Your task to perform on an android device: change keyboard looks Image 0: 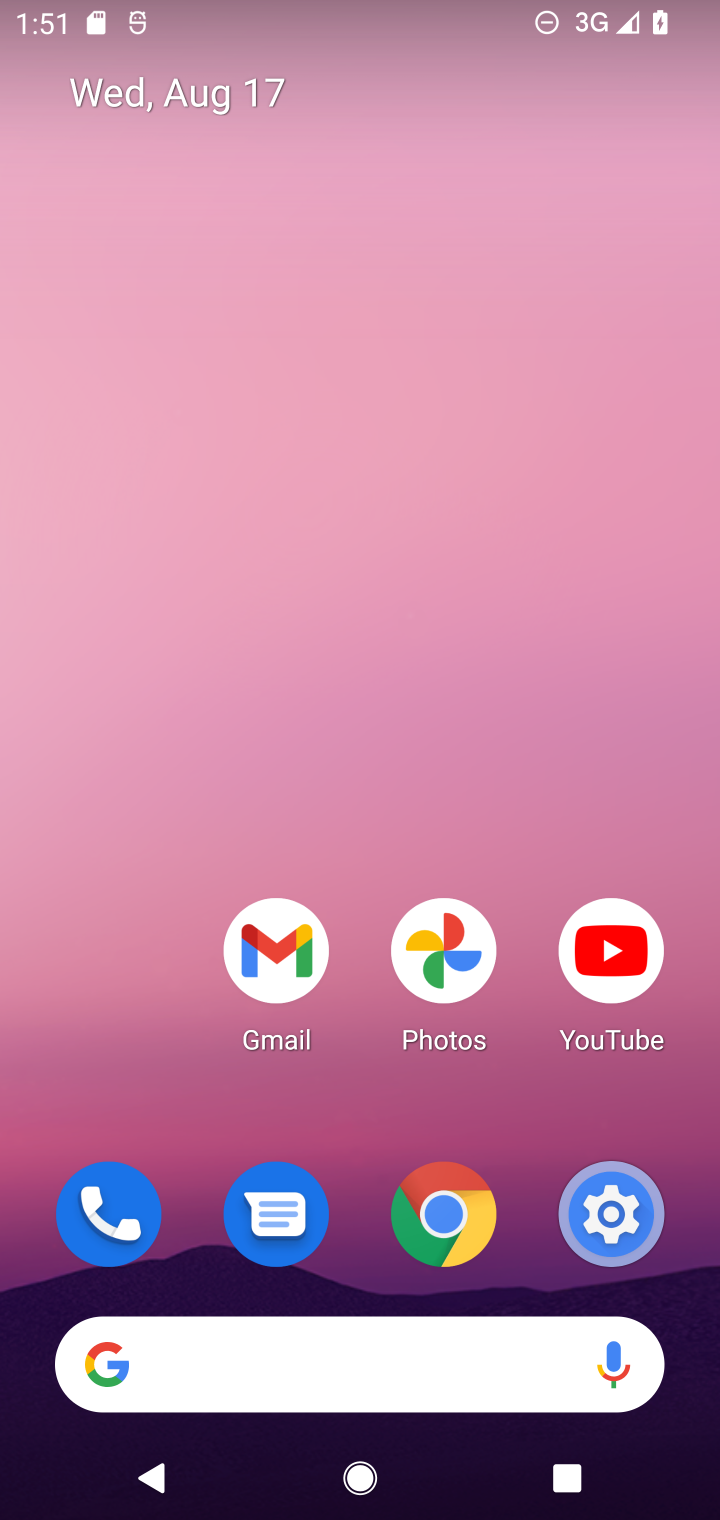
Step 0: click (615, 1204)
Your task to perform on an android device: change keyboard looks Image 1: 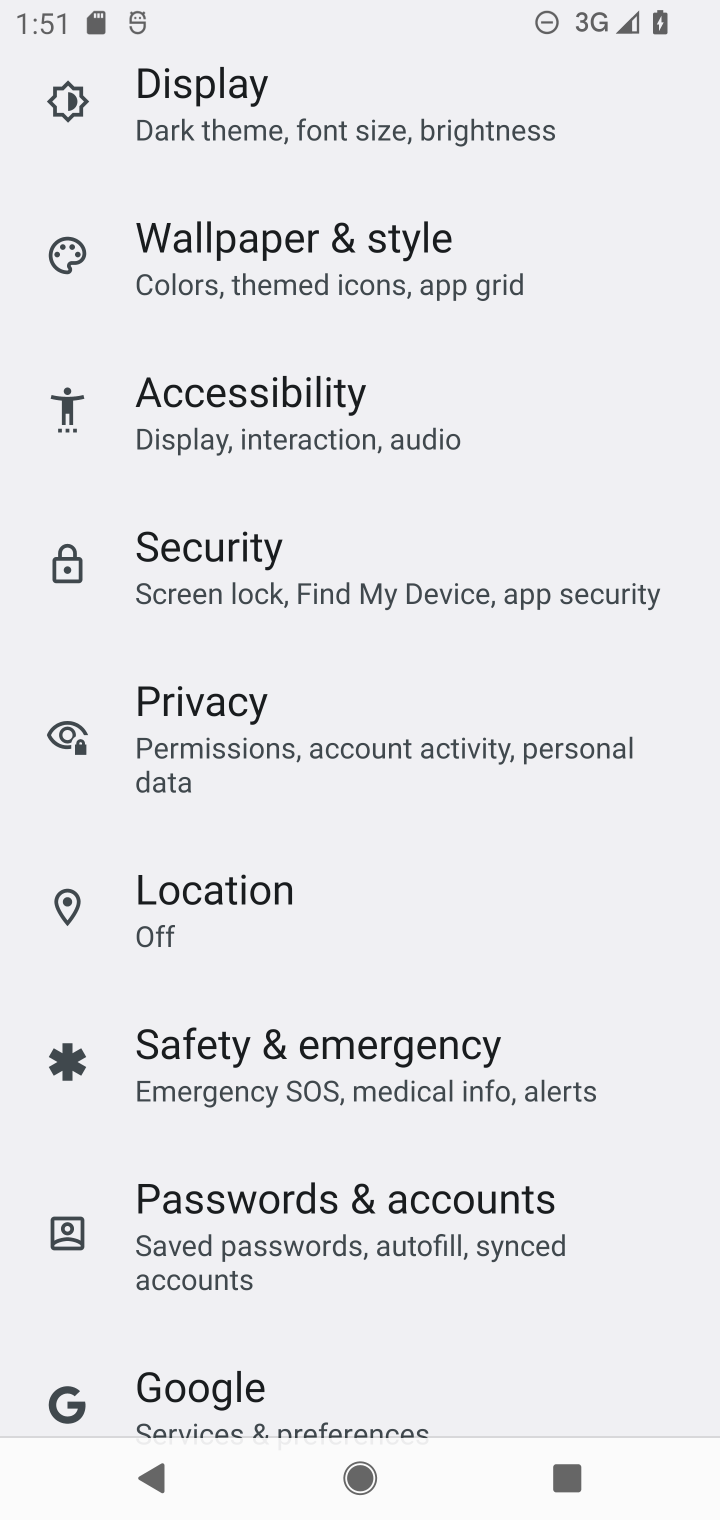
Step 1: drag from (358, 1301) to (333, 613)
Your task to perform on an android device: change keyboard looks Image 2: 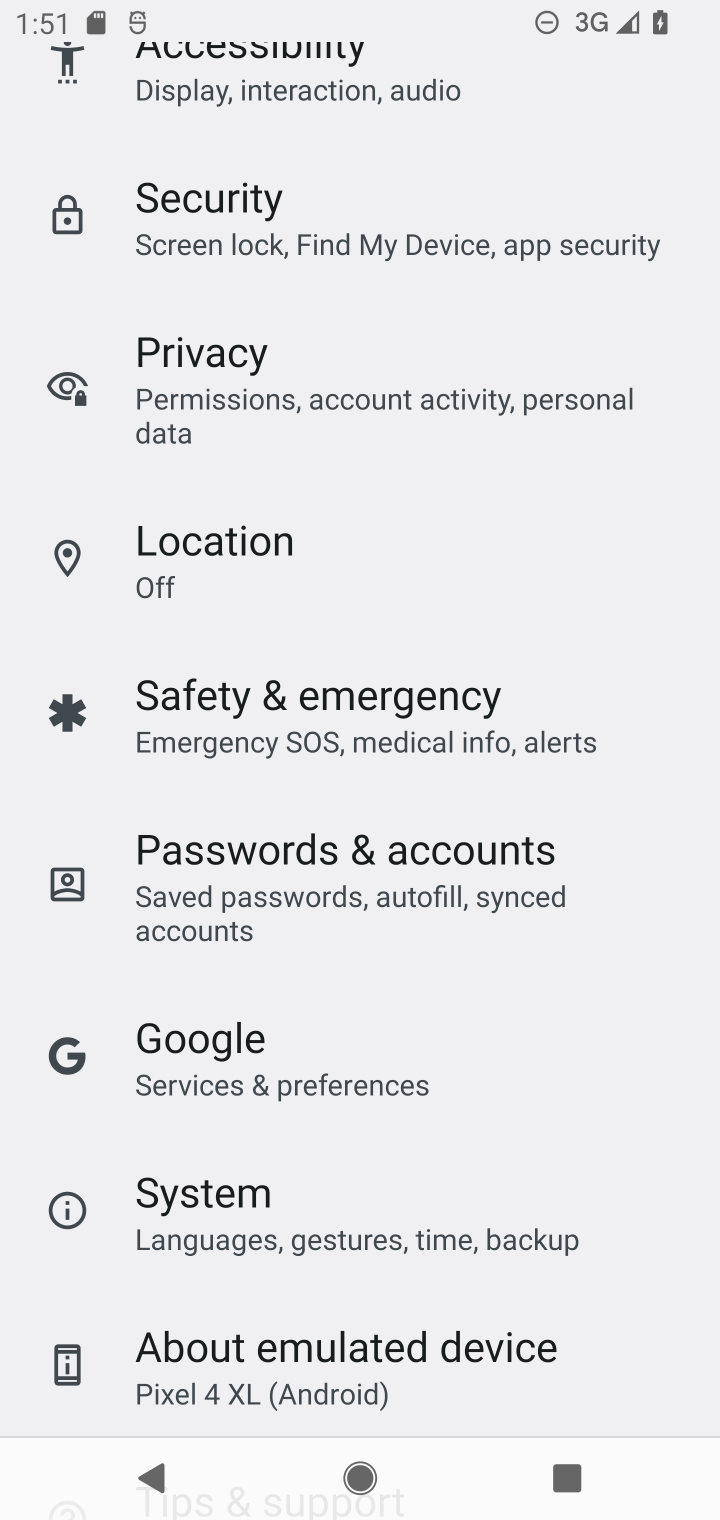
Step 2: drag from (317, 1137) to (320, 750)
Your task to perform on an android device: change keyboard looks Image 3: 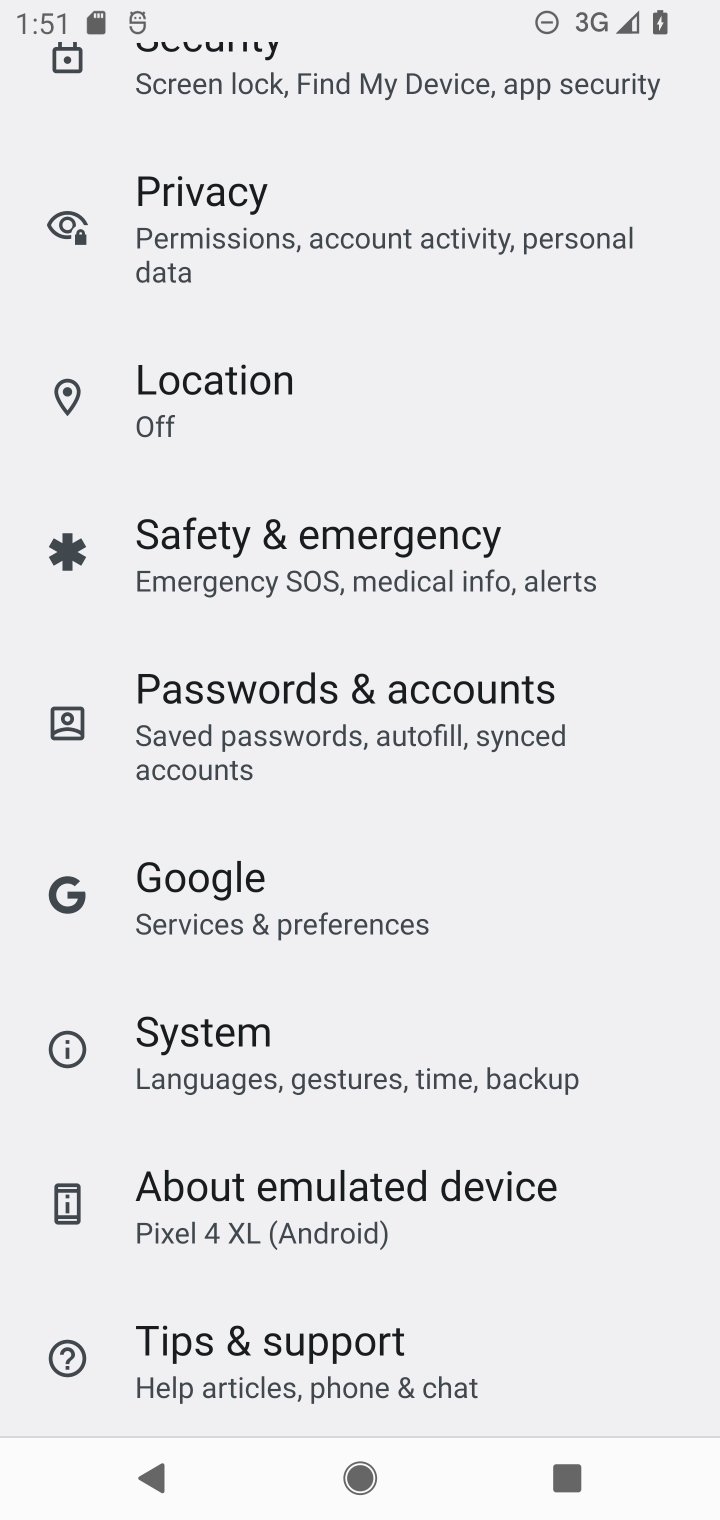
Step 3: click (216, 1033)
Your task to perform on an android device: change keyboard looks Image 4: 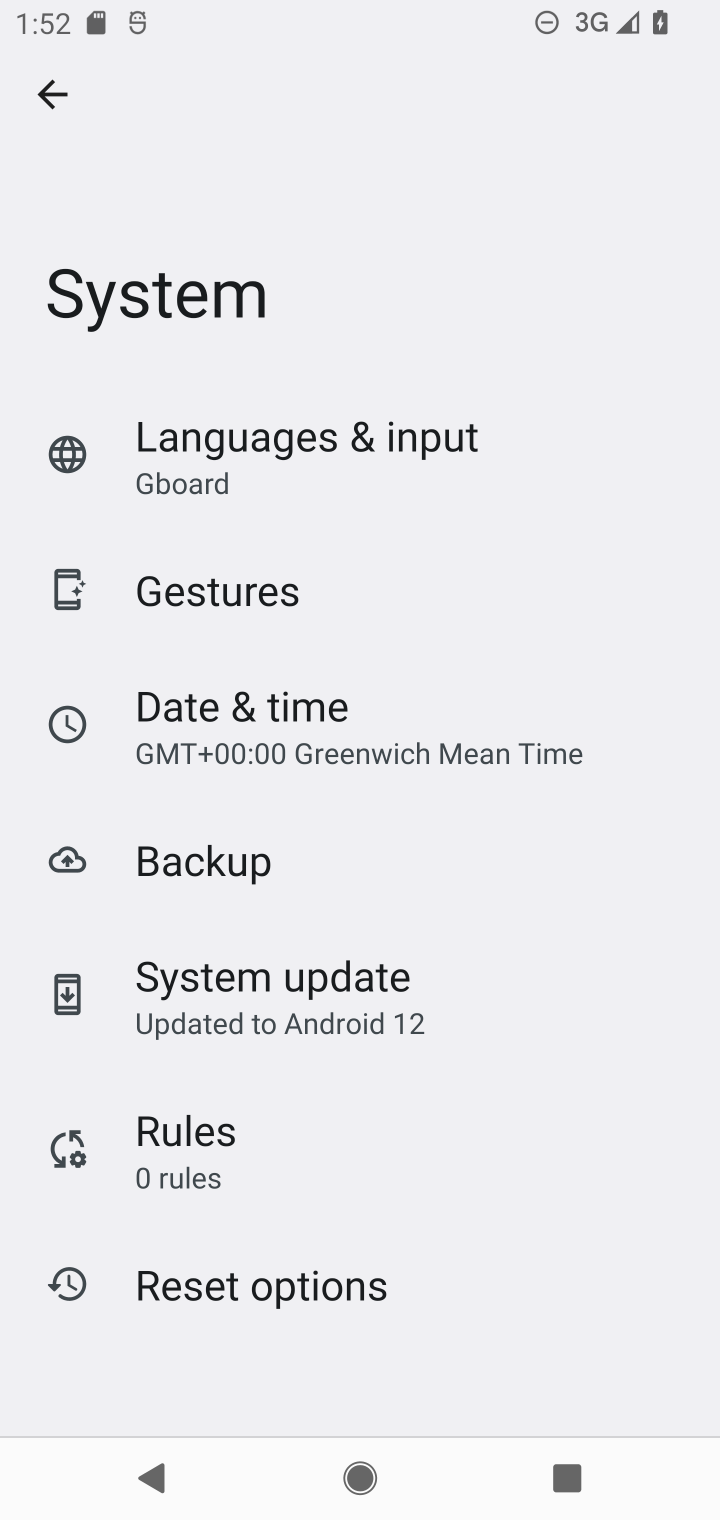
Step 4: click (231, 437)
Your task to perform on an android device: change keyboard looks Image 5: 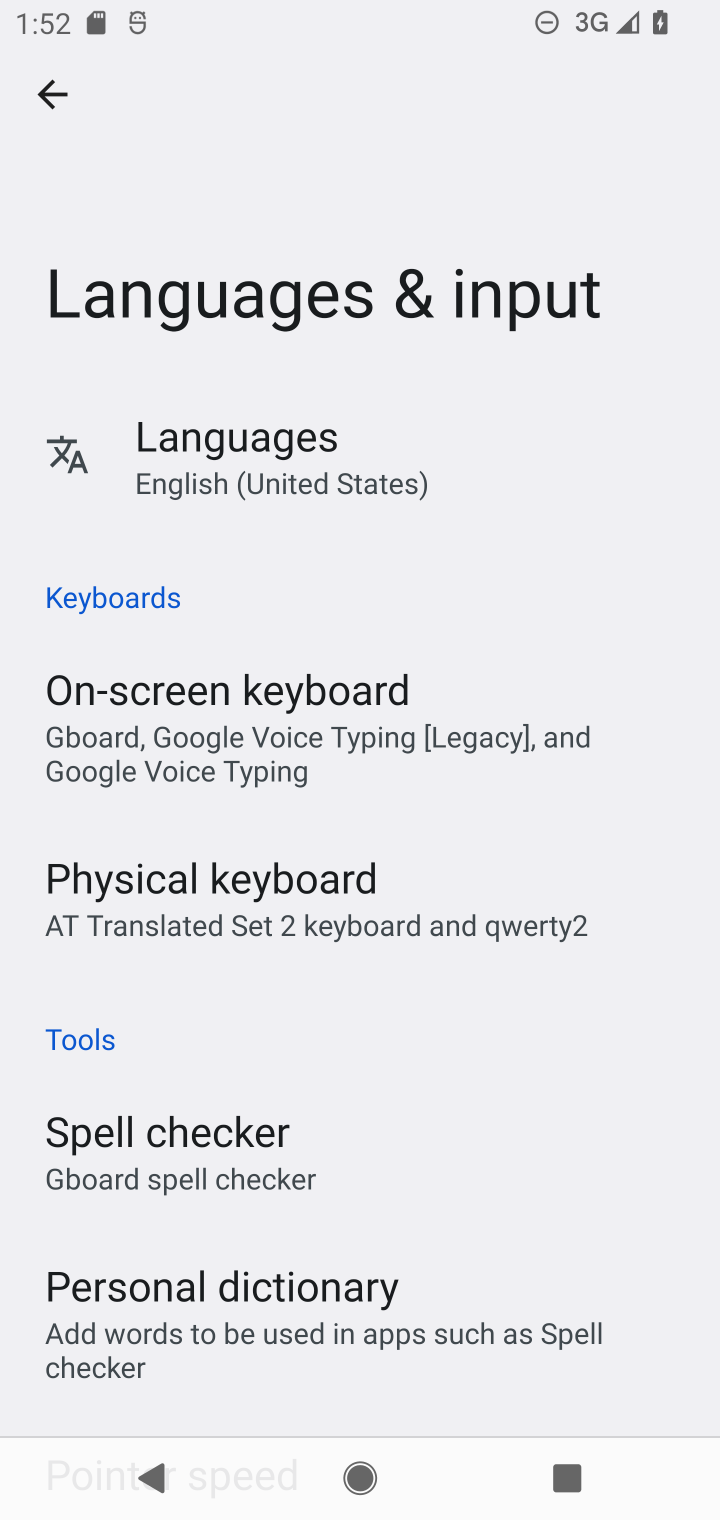
Step 5: click (194, 685)
Your task to perform on an android device: change keyboard looks Image 6: 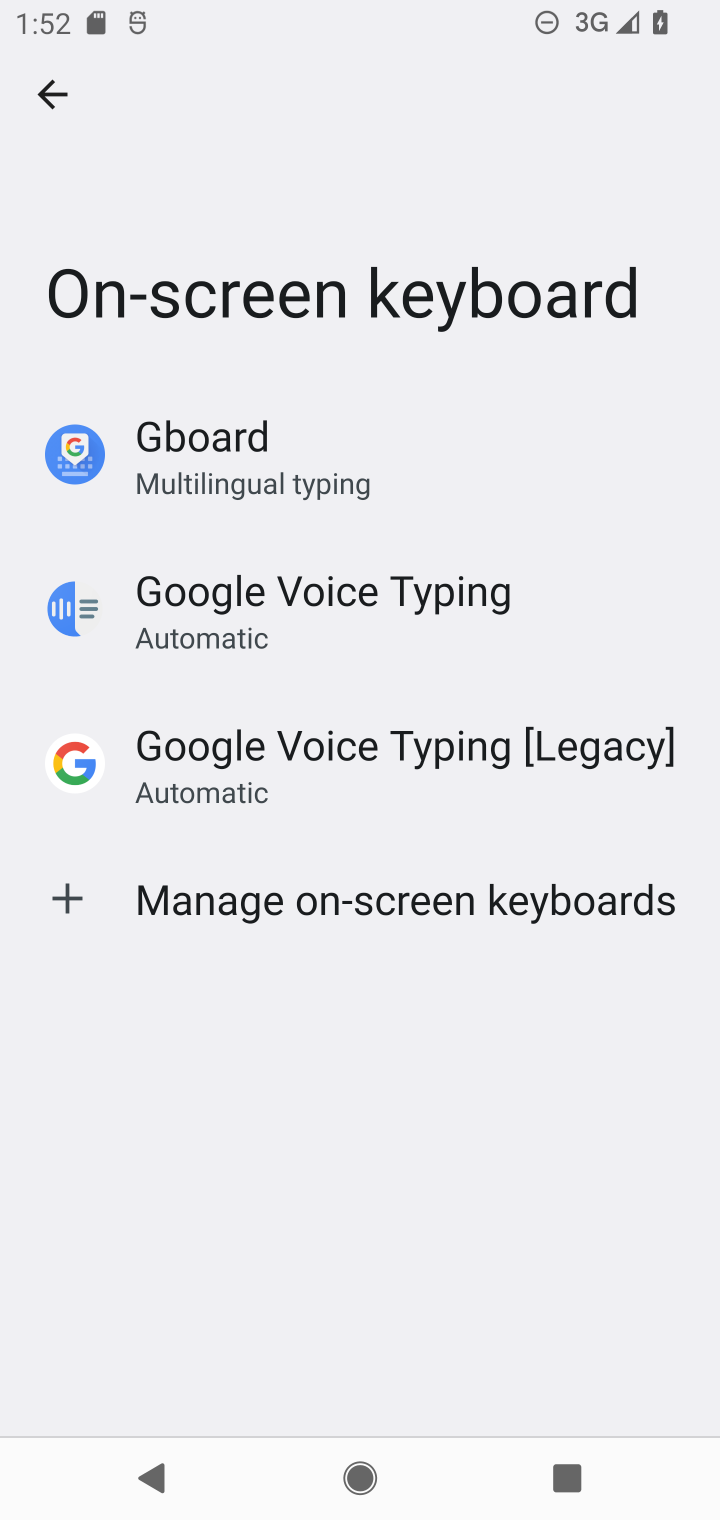
Step 6: click (185, 443)
Your task to perform on an android device: change keyboard looks Image 7: 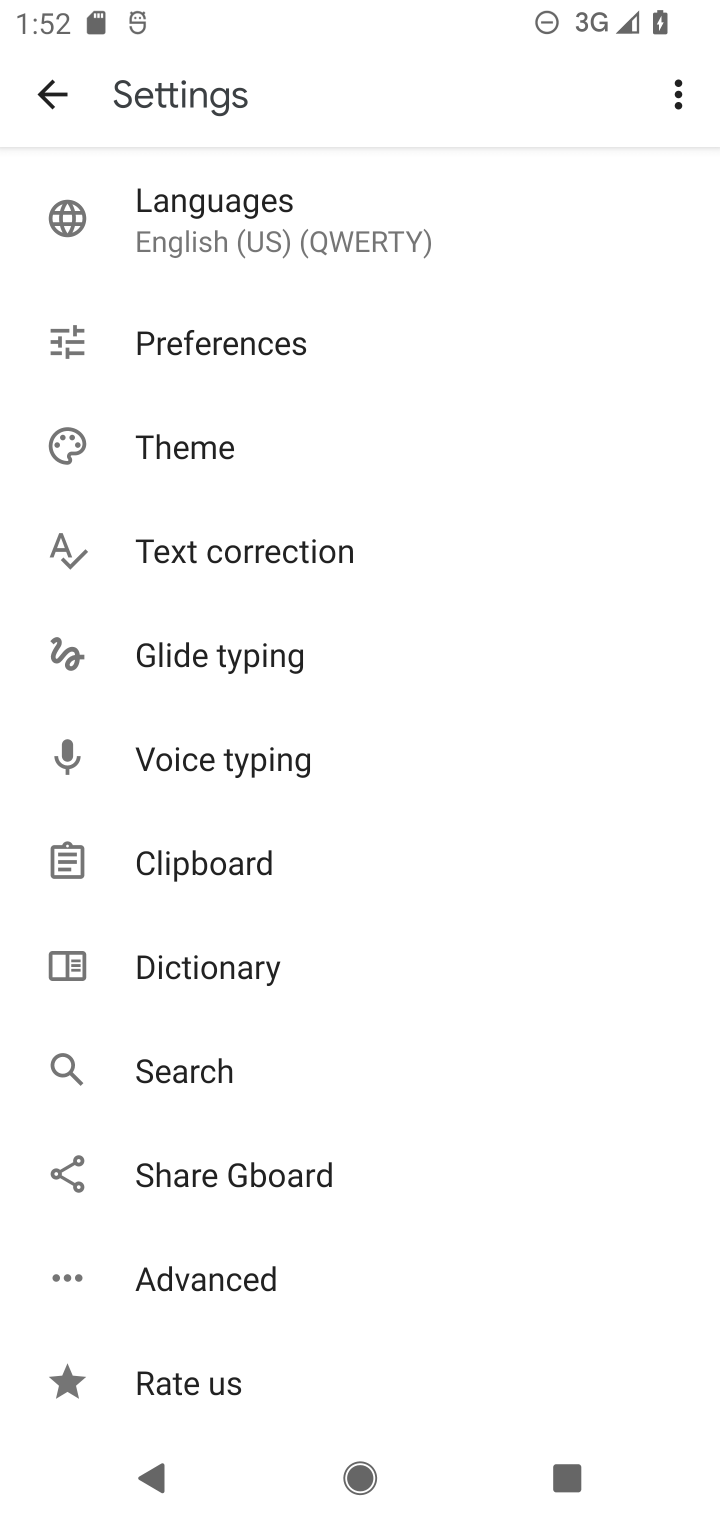
Step 7: click (176, 437)
Your task to perform on an android device: change keyboard looks Image 8: 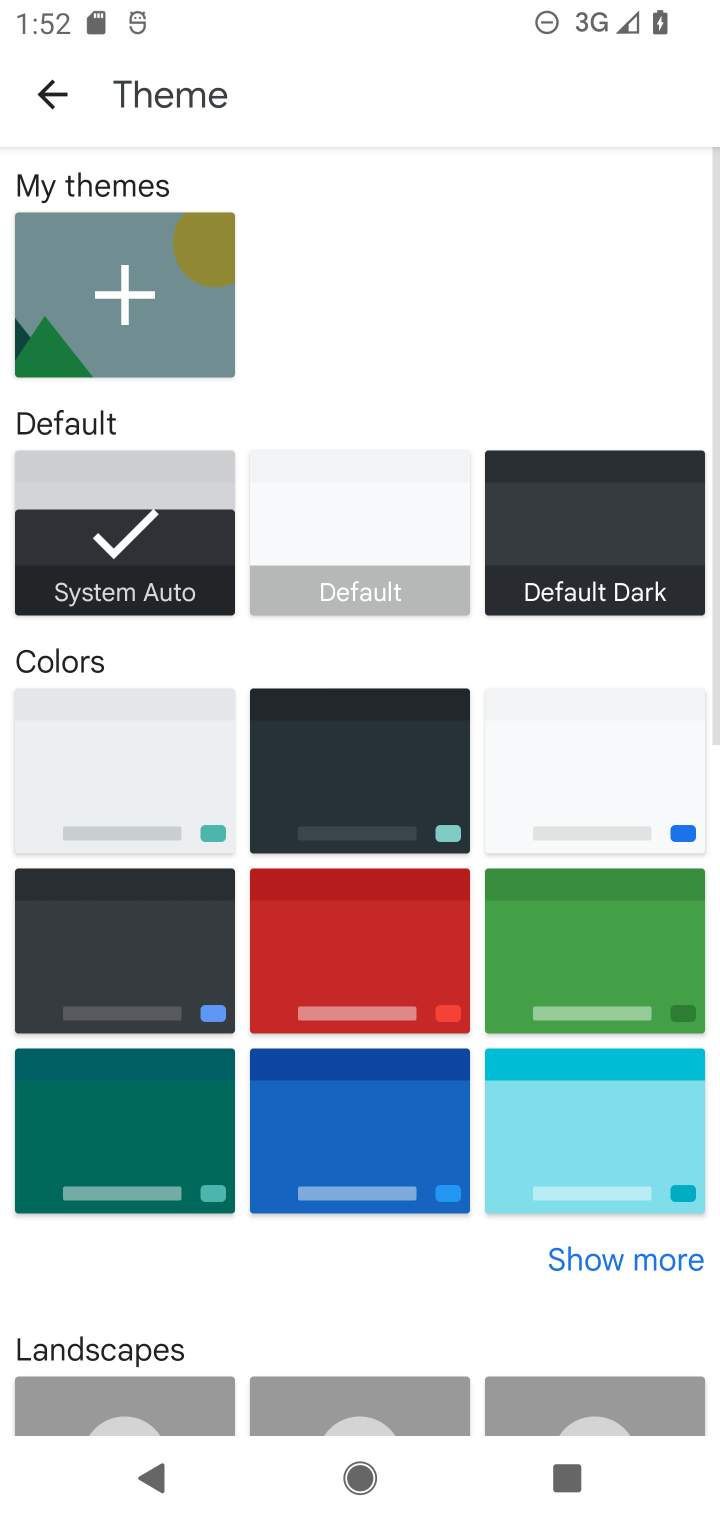
Step 8: click (591, 520)
Your task to perform on an android device: change keyboard looks Image 9: 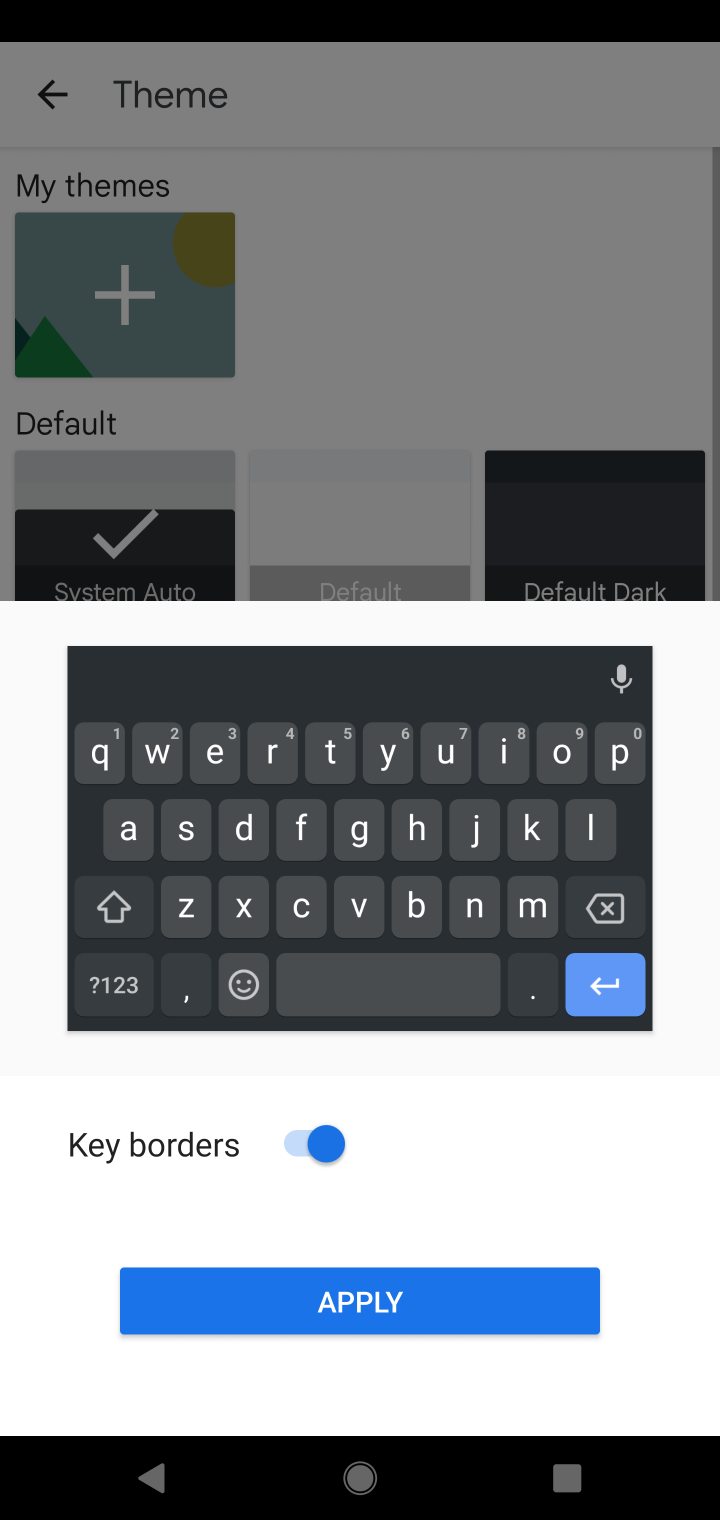
Step 9: click (402, 1293)
Your task to perform on an android device: change keyboard looks Image 10: 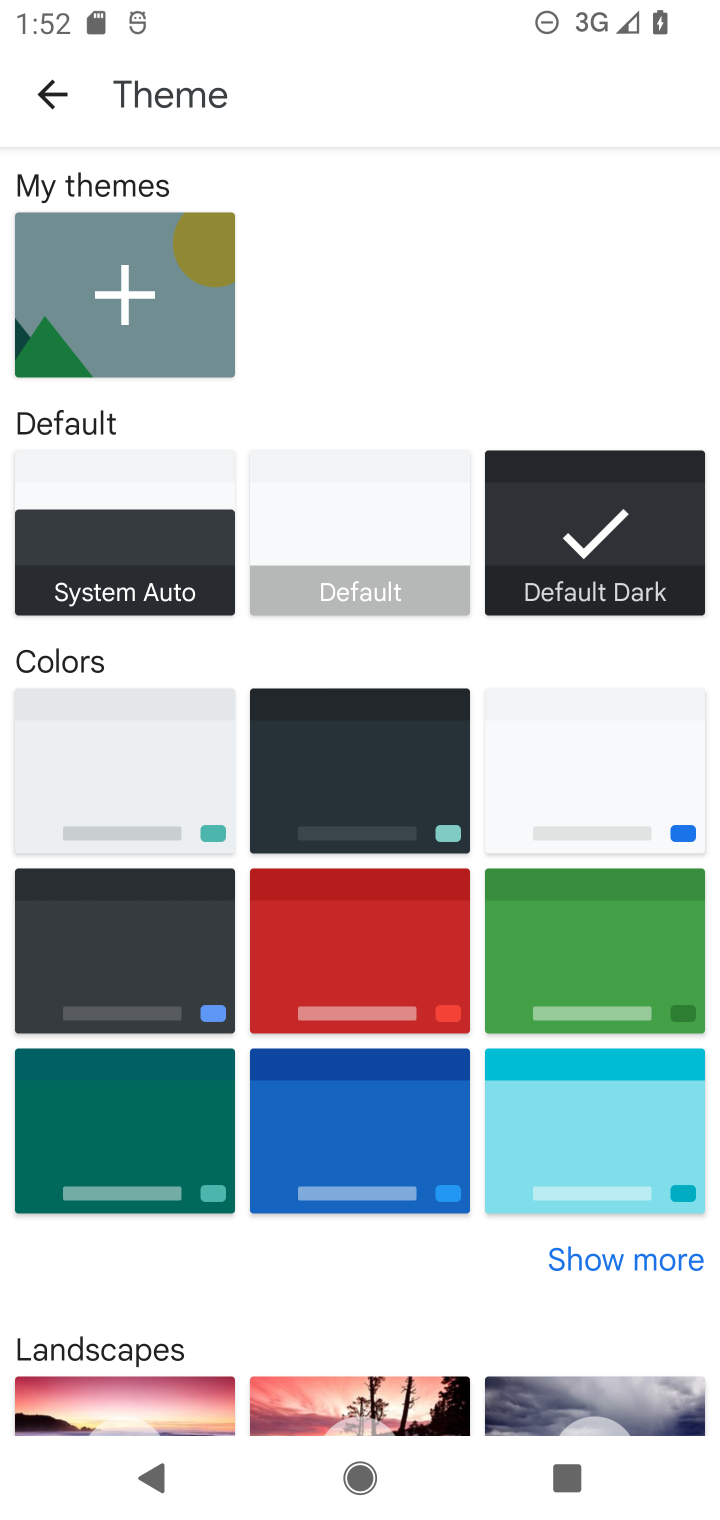
Step 10: task complete